Your task to perform on an android device: turn on sleep mode Image 0: 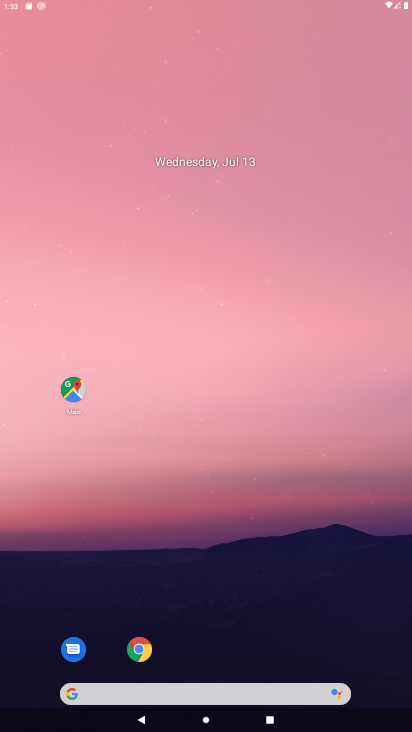
Step 0: press home button
Your task to perform on an android device: turn on sleep mode Image 1: 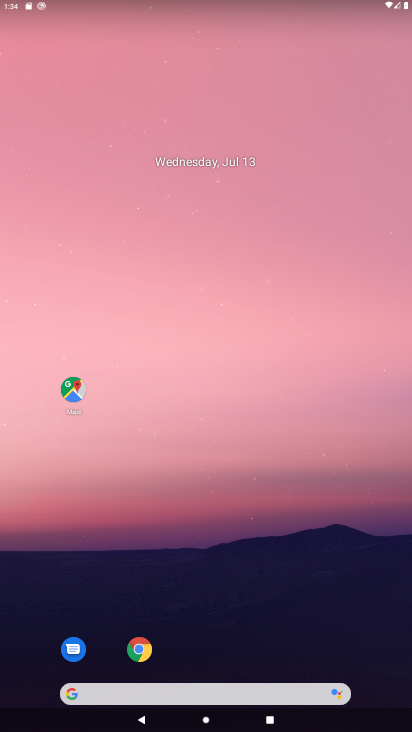
Step 1: drag from (282, 673) to (244, 299)
Your task to perform on an android device: turn on sleep mode Image 2: 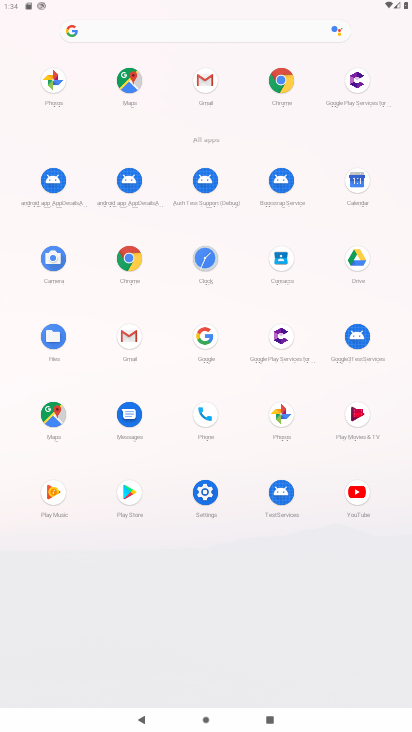
Step 2: click (182, 483)
Your task to perform on an android device: turn on sleep mode Image 3: 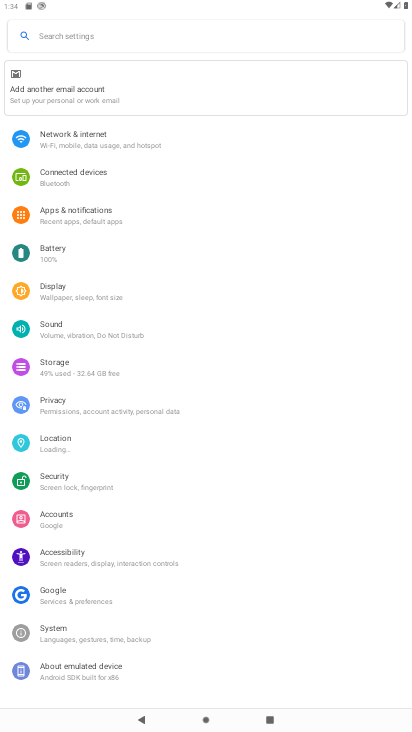
Step 3: click (38, 279)
Your task to perform on an android device: turn on sleep mode Image 4: 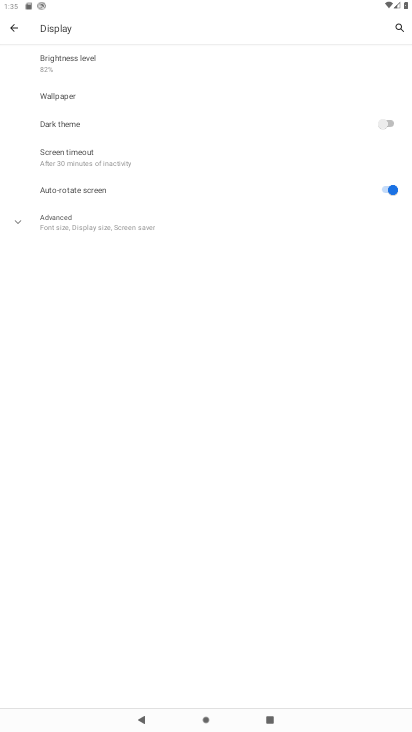
Step 4: task complete